Your task to perform on an android device: Open Chrome and go to settings Image 0: 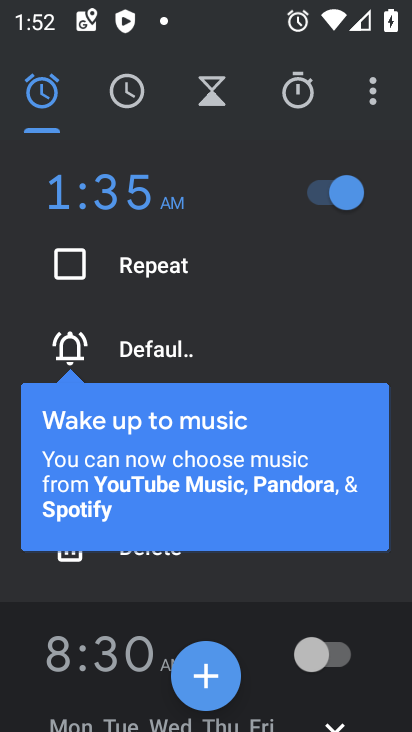
Step 0: press home button
Your task to perform on an android device: Open Chrome and go to settings Image 1: 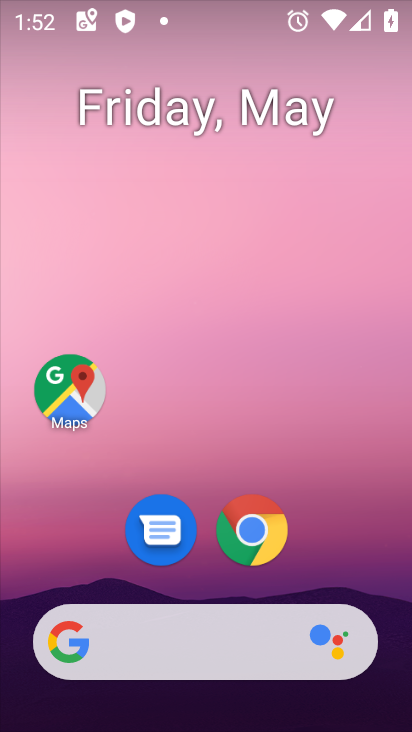
Step 1: drag from (311, 403) to (304, 43)
Your task to perform on an android device: Open Chrome and go to settings Image 2: 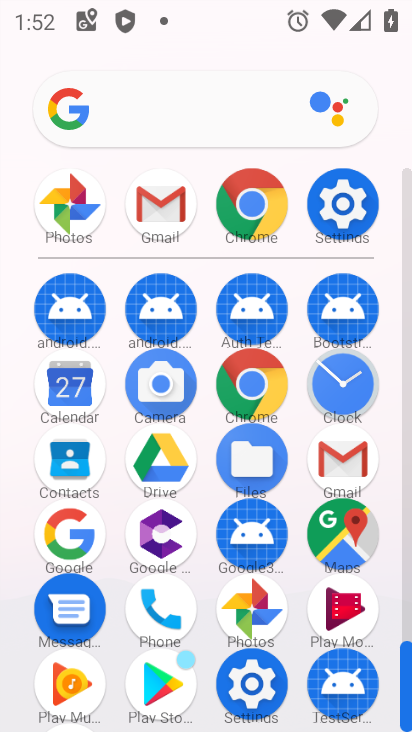
Step 2: click (253, 203)
Your task to perform on an android device: Open Chrome and go to settings Image 3: 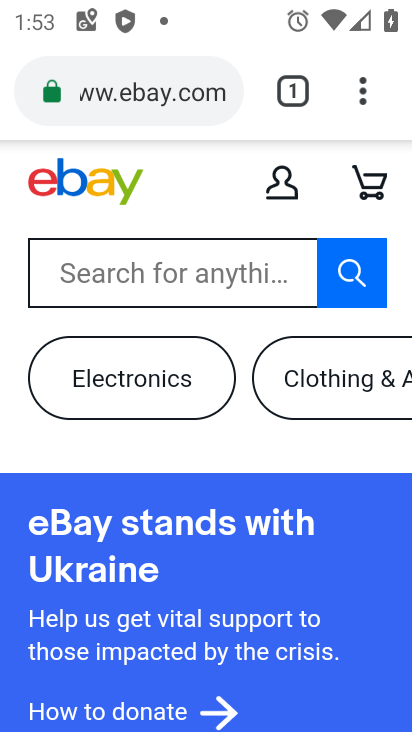
Step 3: click (361, 95)
Your task to perform on an android device: Open Chrome and go to settings Image 4: 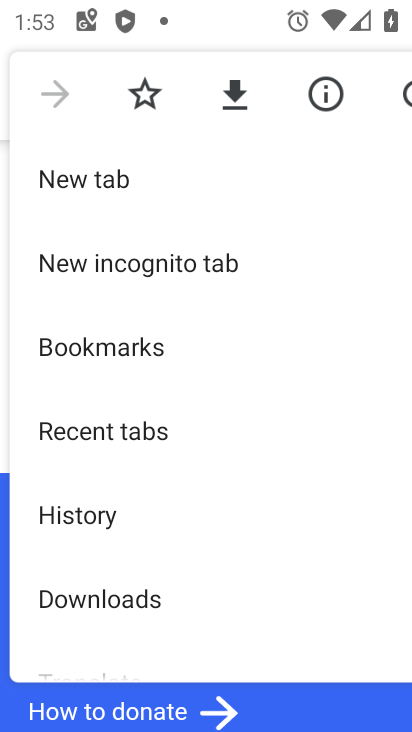
Step 4: drag from (238, 564) to (229, 32)
Your task to perform on an android device: Open Chrome and go to settings Image 5: 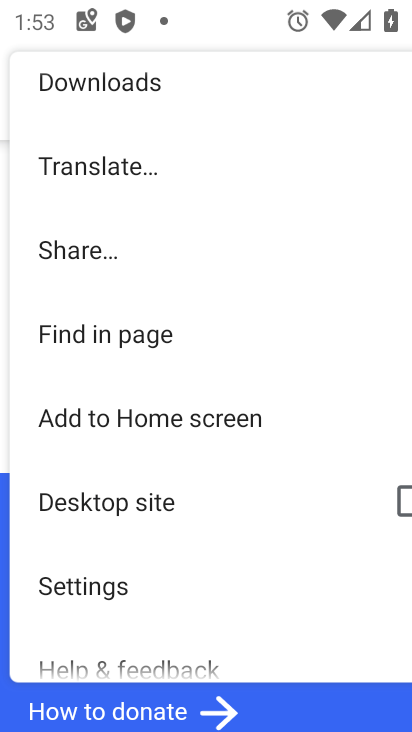
Step 5: click (93, 582)
Your task to perform on an android device: Open Chrome and go to settings Image 6: 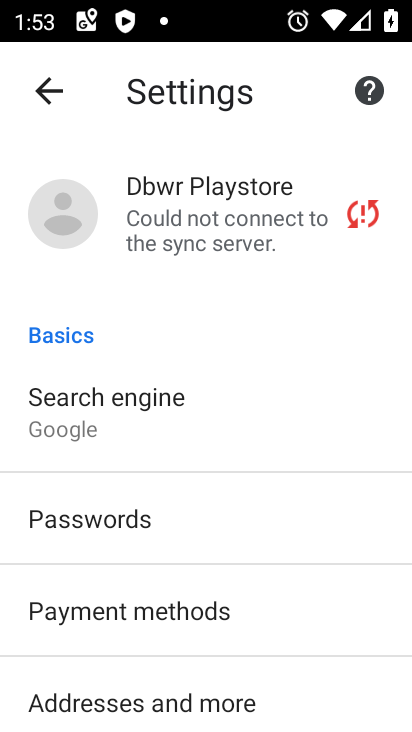
Step 6: task complete